Your task to perform on an android device: move an email to a new category in the gmail app Image 0: 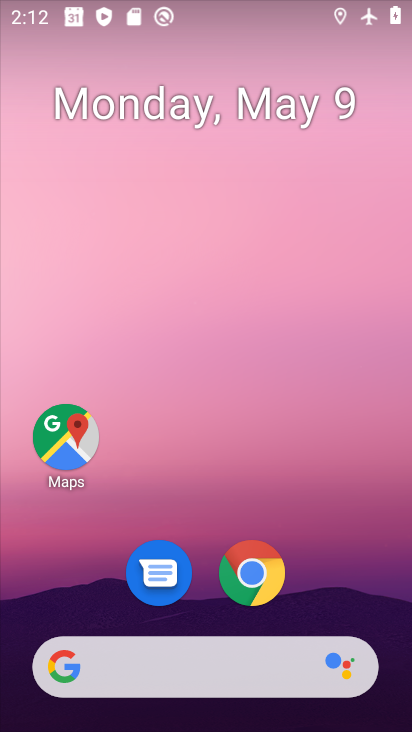
Step 0: drag from (380, 655) to (283, 295)
Your task to perform on an android device: move an email to a new category in the gmail app Image 1: 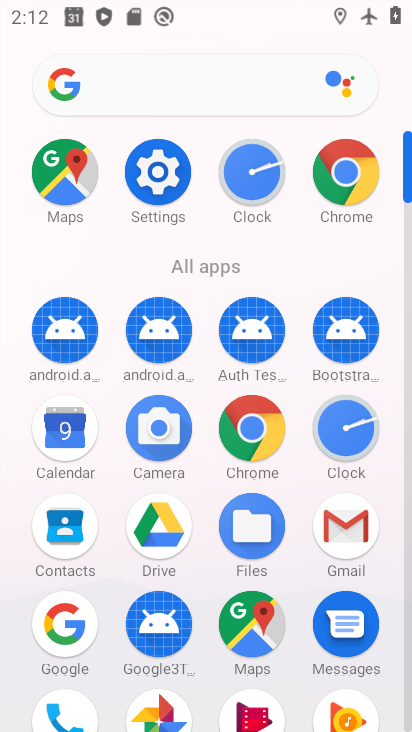
Step 1: click (344, 528)
Your task to perform on an android device: move an email to a new category in the gmail app Image 2: 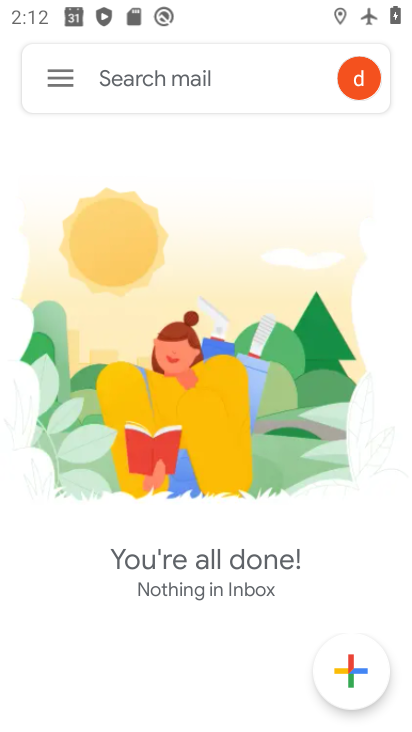
Step 2: click (66, 80)
Your task to perform on an android device: move an email to a new category in the gmail app Image 3: 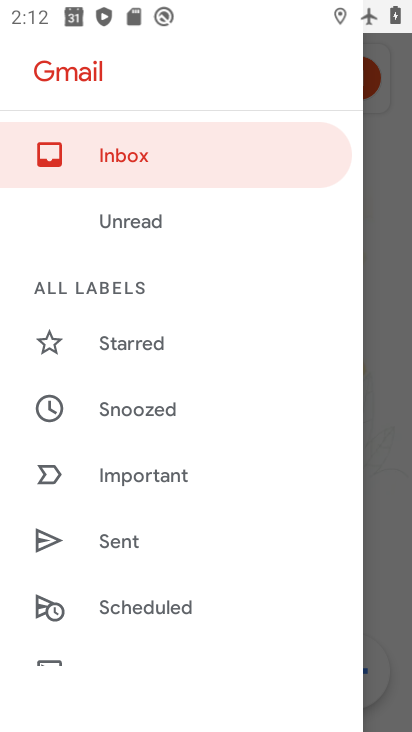
Step 3: drag from (184, 592) to (189, 73)
Your task to perform on an android device: move an email to a new category in the gmail app Image 4: 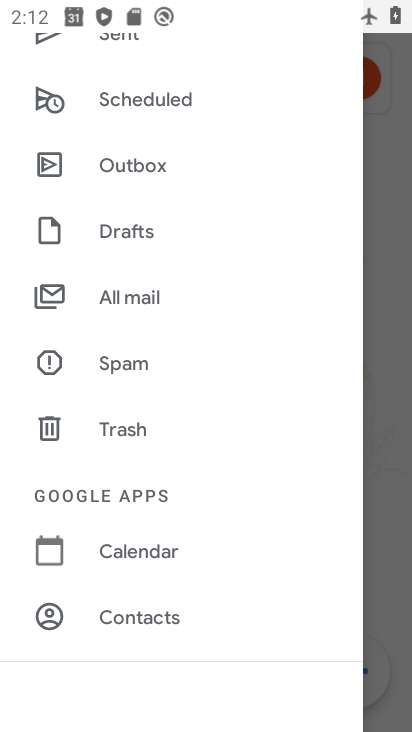
Step 4: click (121, 306)
Your task to perform on an android device: move an email to a new category in the gmail app Image 5: 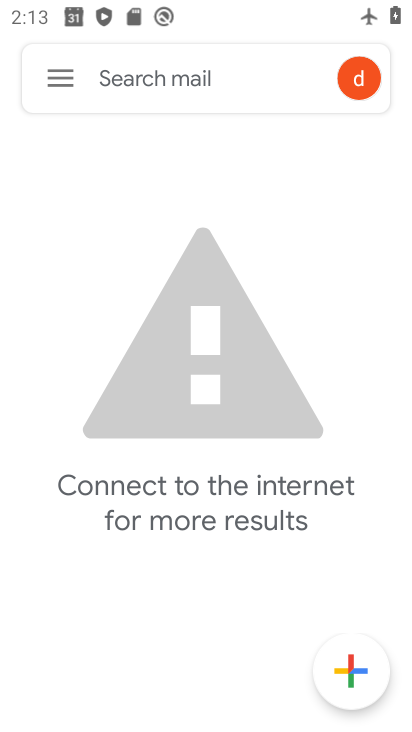
Step 5: task complete